Your task to perform on an android device: Open the stopwatch Image 0: 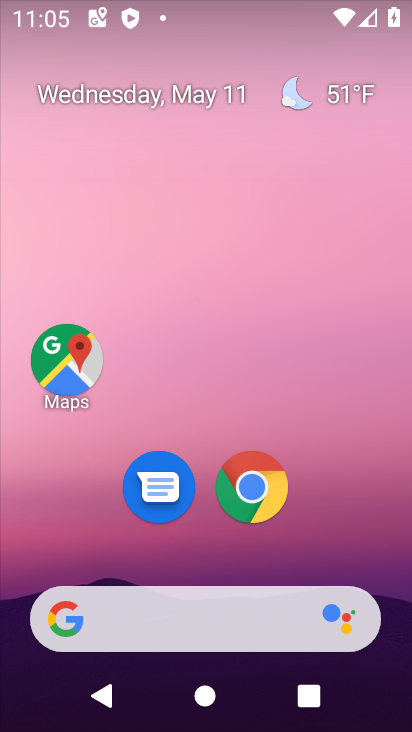
Step 0: drag from (364, 515) to (268, 133)
Your task to perform on an android device: Open the stopwatch Image 1: 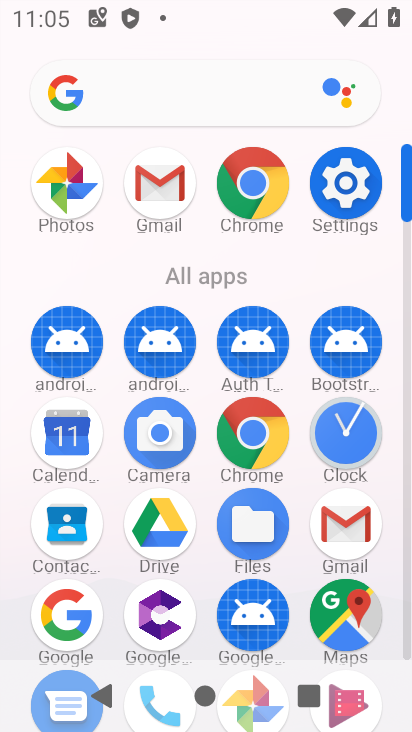
Step 1: click (363, 443)
Your task to perform on an android device: Open the stopwatch Image 2: 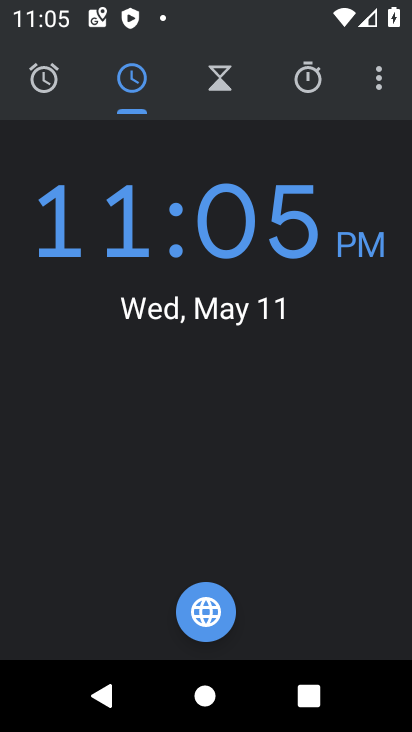
Step 2: click (310, 83)
Your task to perform on an android device: Open the stopwatch Image 3: 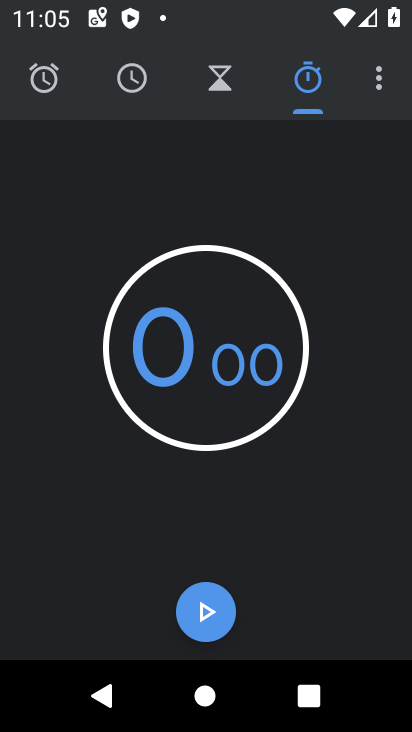
Step 3: task complete